Your task to perform on an android device: change timer sound Image 0: 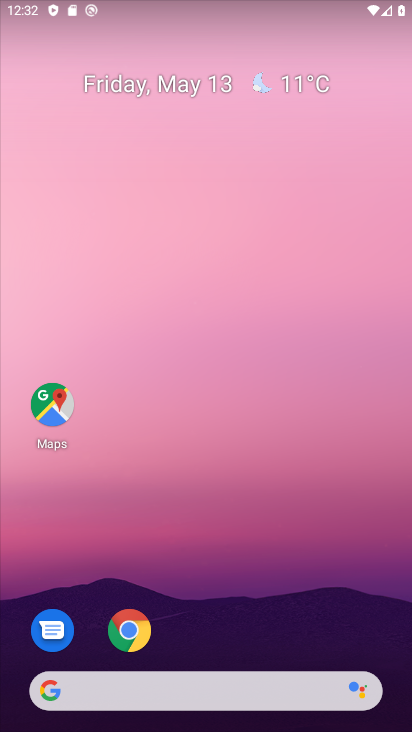
Step 0: drag from (239, 615) to (260, 174)
Your task to perform on an android device: change timer sound Image 1: 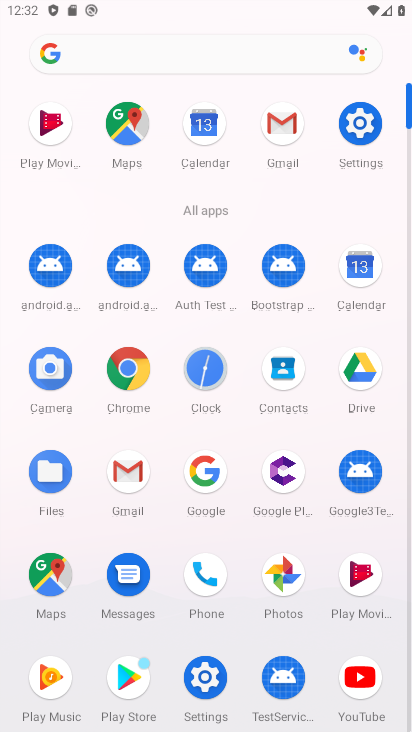
Step 1: click (202, 389)
Your task to perform on an android device: change timer sound Image 2: 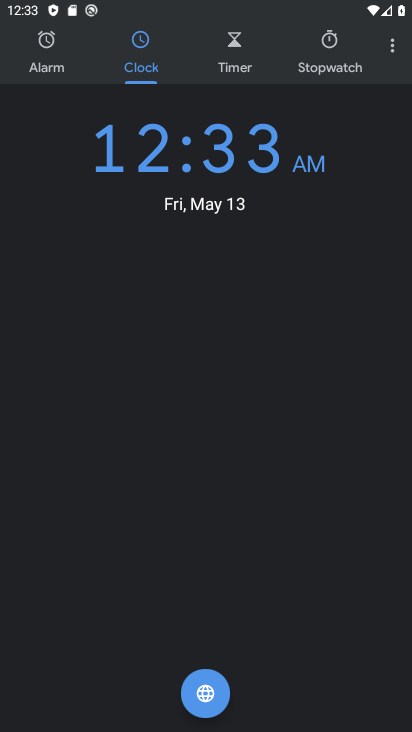
Step 2: click (397, 57)
Your task to perform on an android device: change timer sound Image 3: 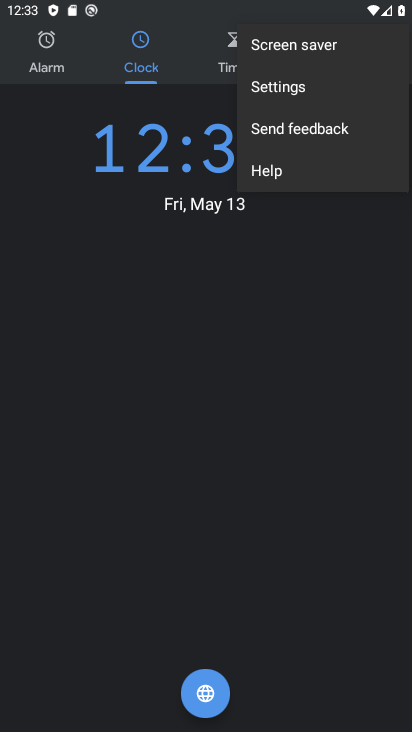
Step 3: click (299, 322)
Your task to perform on an android device: change timer sound Image 4: 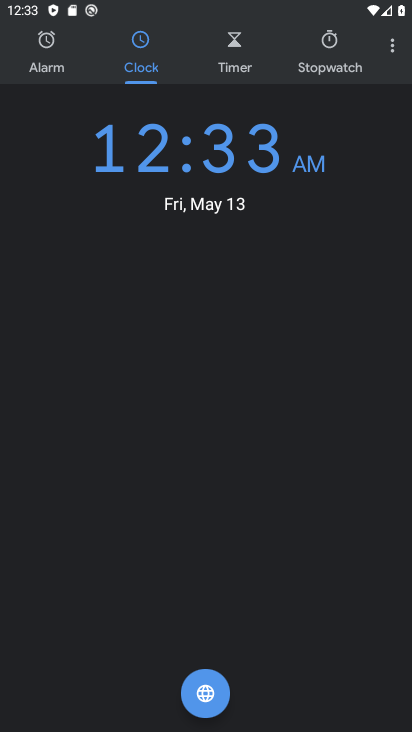
Step 4: click (396, 57)
Your task to perform on an android device: change timer sound Image 5: 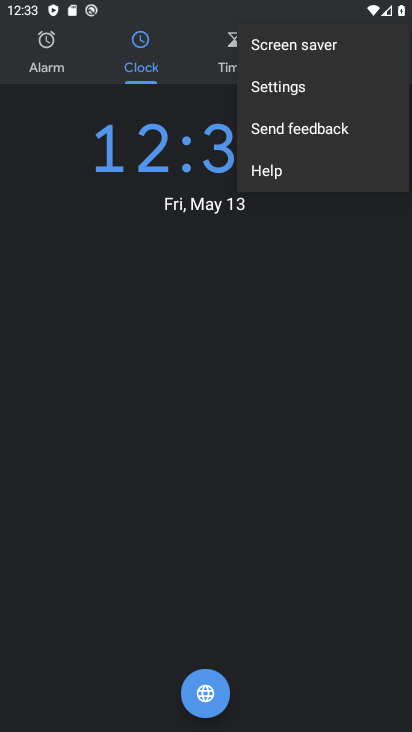
Step 5: click (338, 96)
Your task to perform on an android device: change timer sound Image 6: 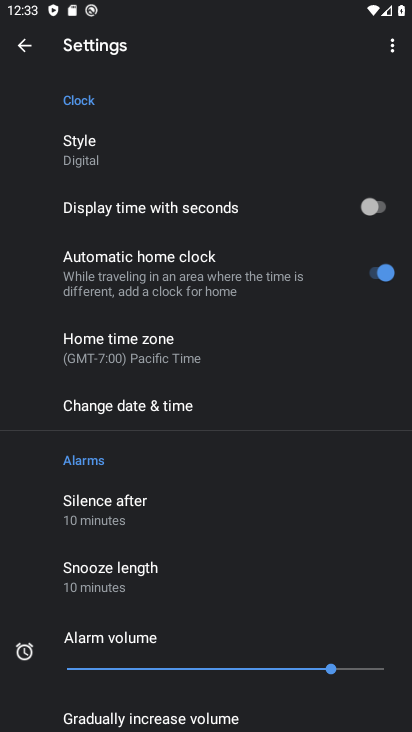
Step 6: drag from (262, 534) to (258, 210)
Your task to perform on an android device: change timer sound Image 7: 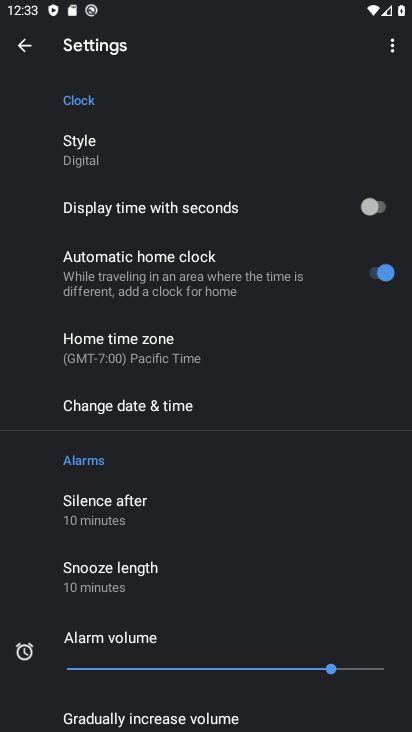
Step 7: drag from (253, 549) to (246, 191)
Your task to perform on an android device: change timer sound Image 8: 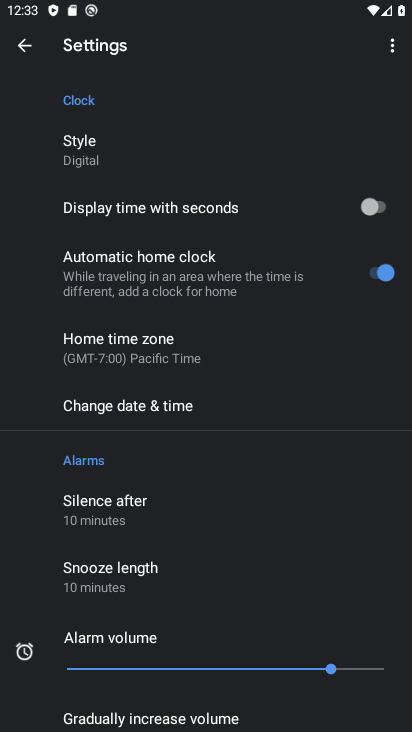
Step 8: drag from (205, 532) to (214, 327)
Your task to perform on an android device: change timer sound Image 9: 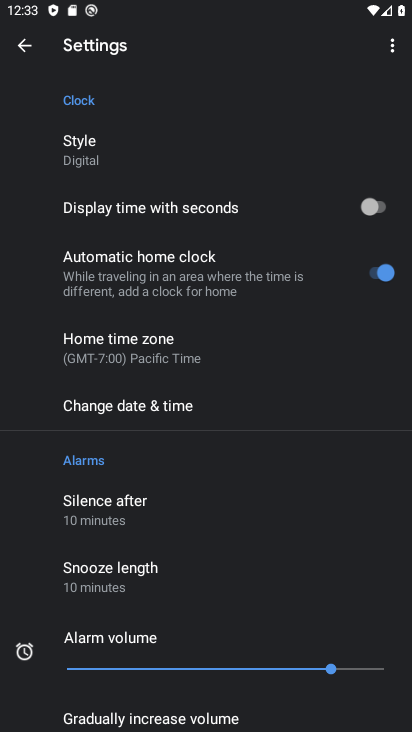
Step 9: drag from (172, 558) to (180, 121)
Your task to perform on an android device: change timer sound Image 10: 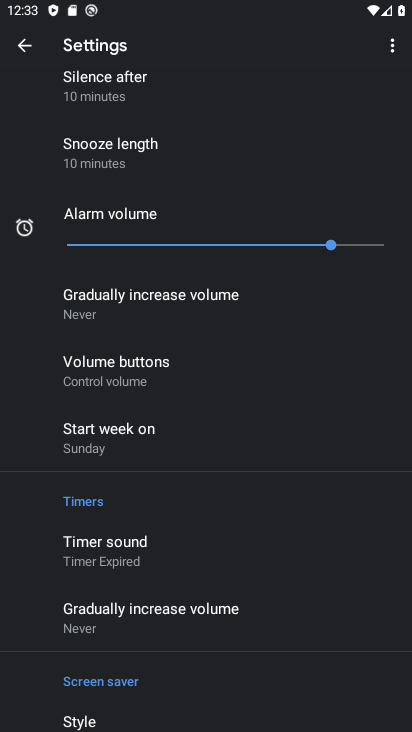
Step 10: drag from (236, 627) to (240, 353)
Your task to perform on an android device: change timer sound Image 11: 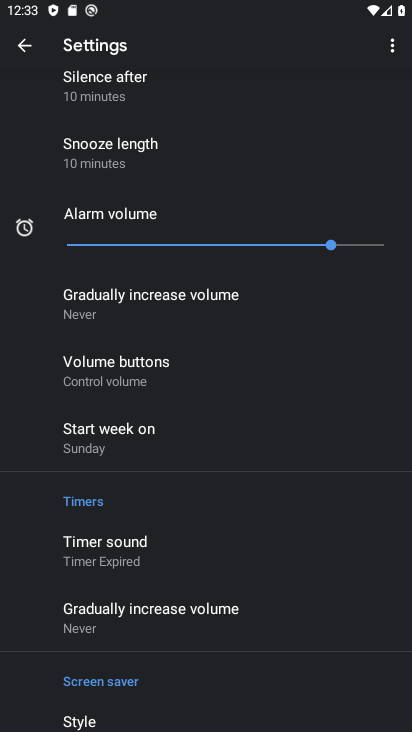
Step 11: drag from (167, 694) to (207, 340)
Your task to perform on an android device: change timer sound Image 12: 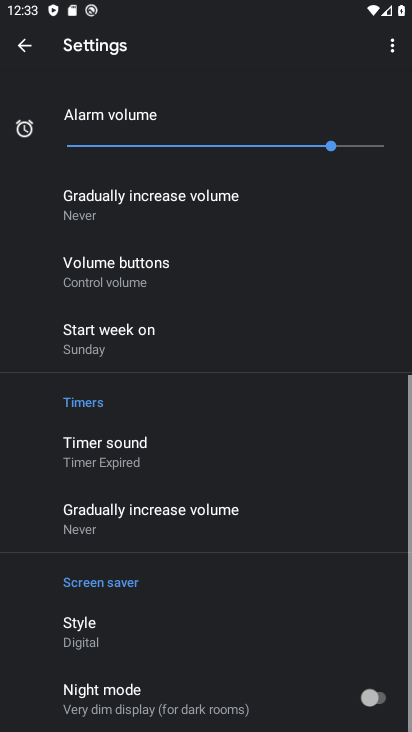
Step 12: drag from (213, 495) to (208, 208)
Your task to perform on an android device: change timer sound Image 13: 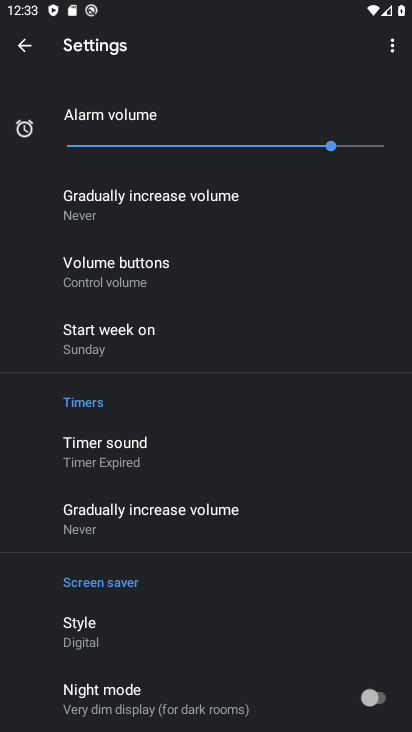
Step 13: click (195, 454)
Your task to perform on an android device: change timer sound Image 14: 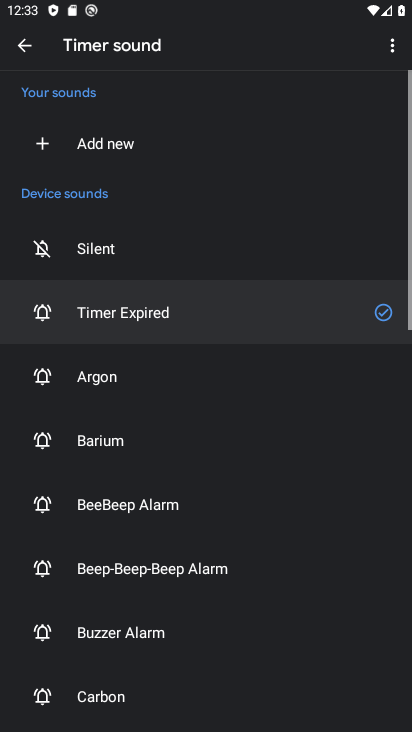
Step 14: click (118, 401)
Your task to perform on an android device: change timer sound Image 15: 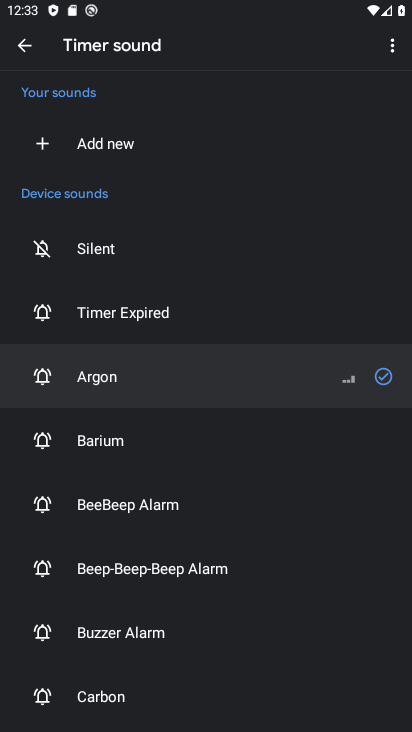
Step 15: task complete